Your task to perform on an android device: search for starred emails in the gmail app Image 0: 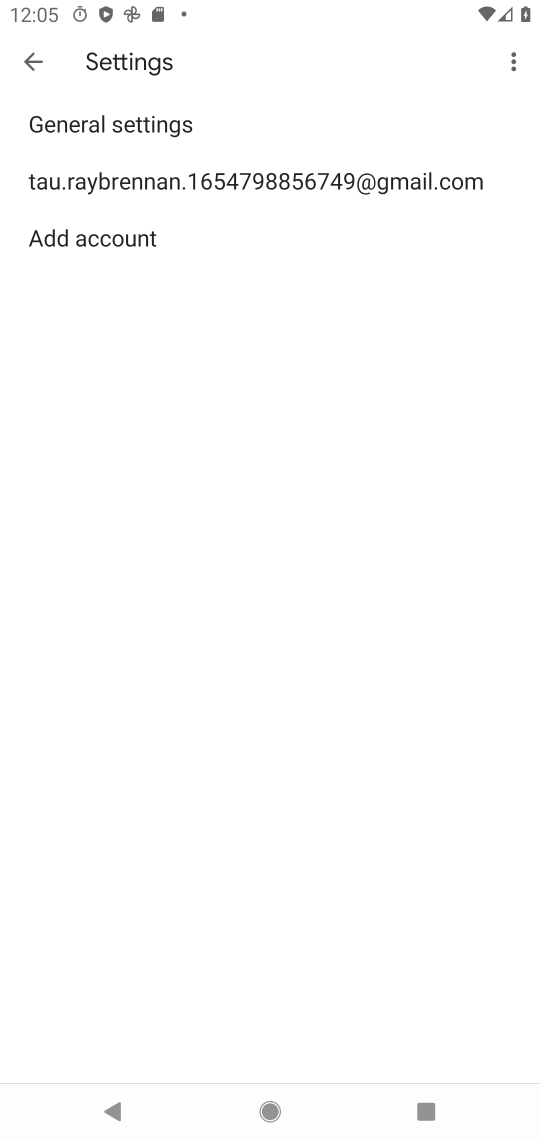
Step 0: press home button
Your task to perform on an android device: search for starred emails in the gmail app Image 1: 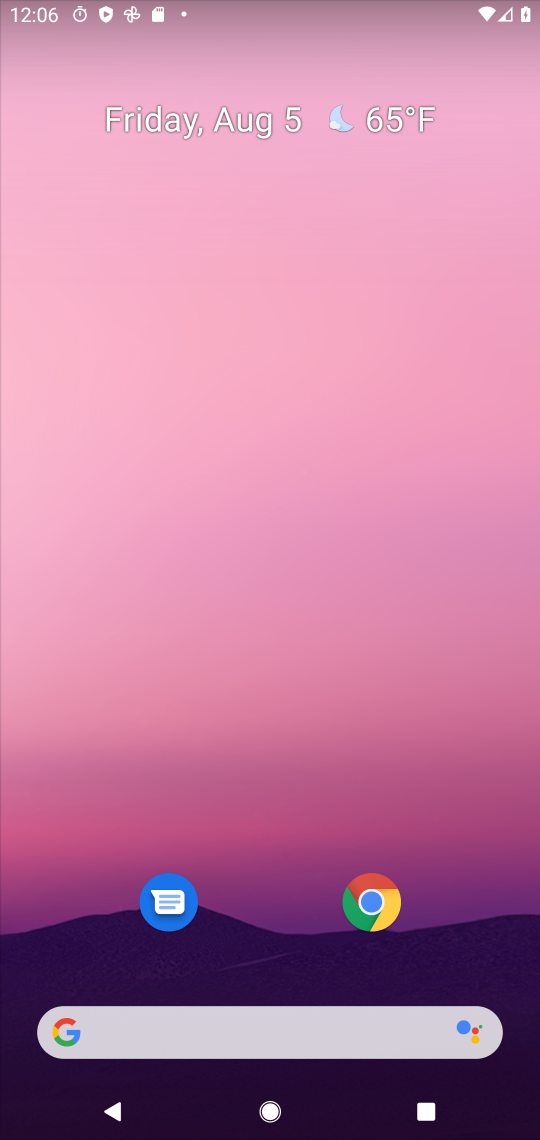
Step 1: drag from (340, 629) to (457, 99)
Your task to perform on an android device: search for starred emails in the gmail app Image 2: 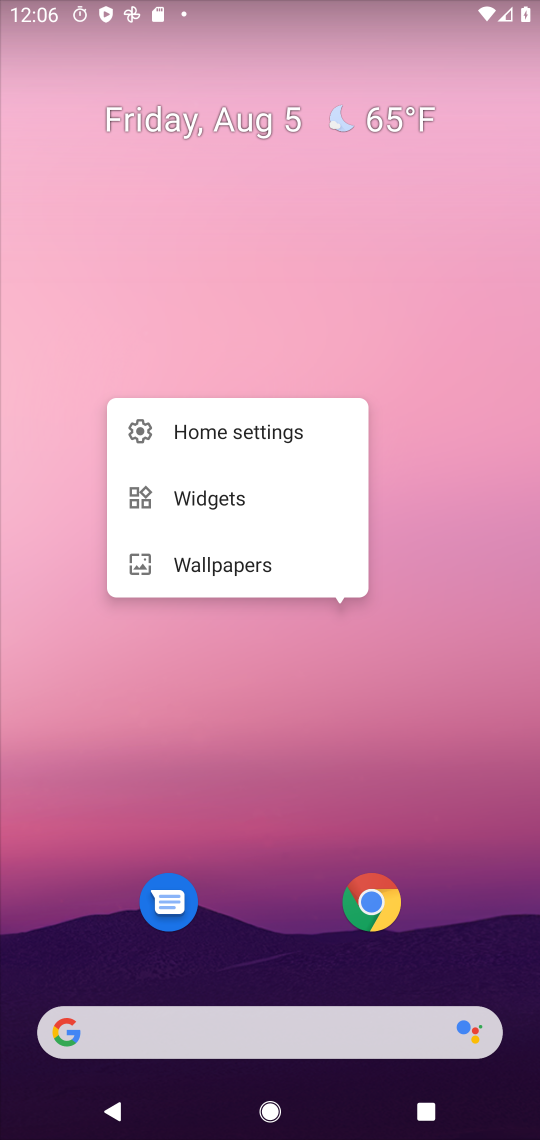
Step 2: click (456, 630)
Your task to perform on an android device: search for starred emails in the gmail app Image 3: 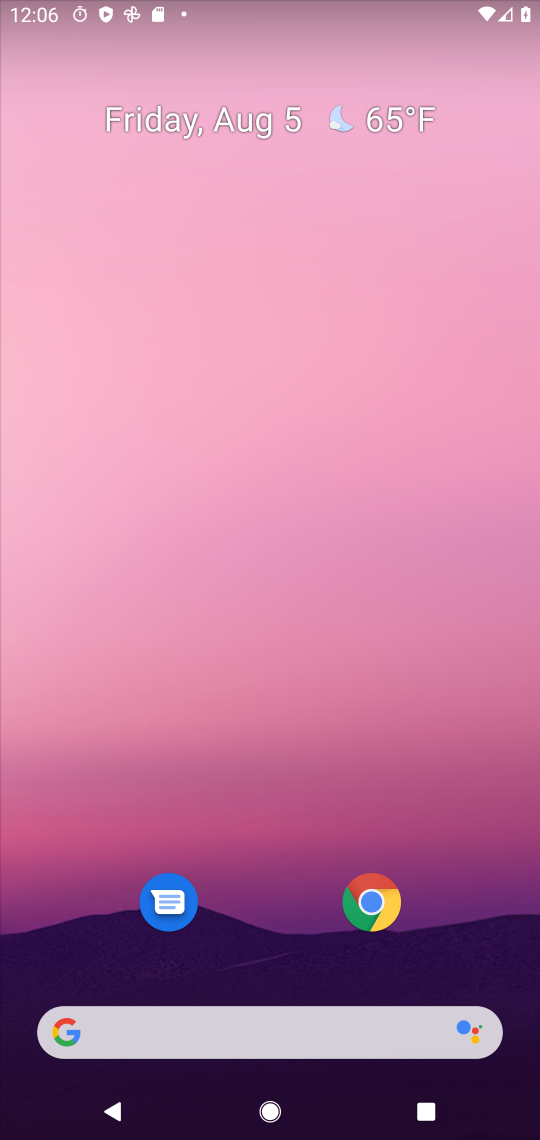
Step 3: drag from (288, 1033) to (377, 238)
Your task to perform on an android device: search for starred emails in the gmail app Image 4: 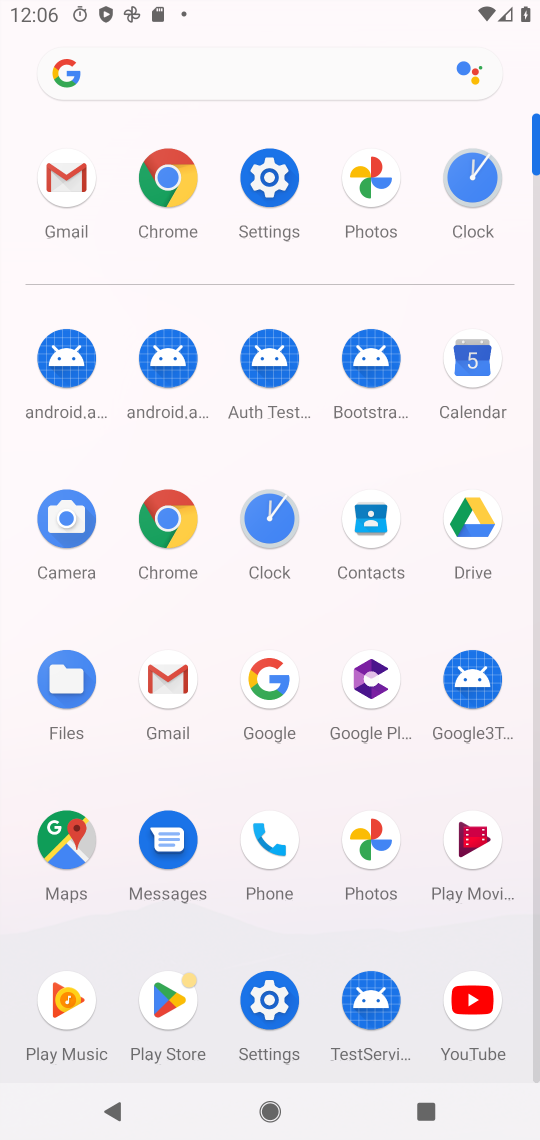
Step 4: click (177, 692)
Your task to perform on an android device: search for starred emails in the gmail app Image 5: 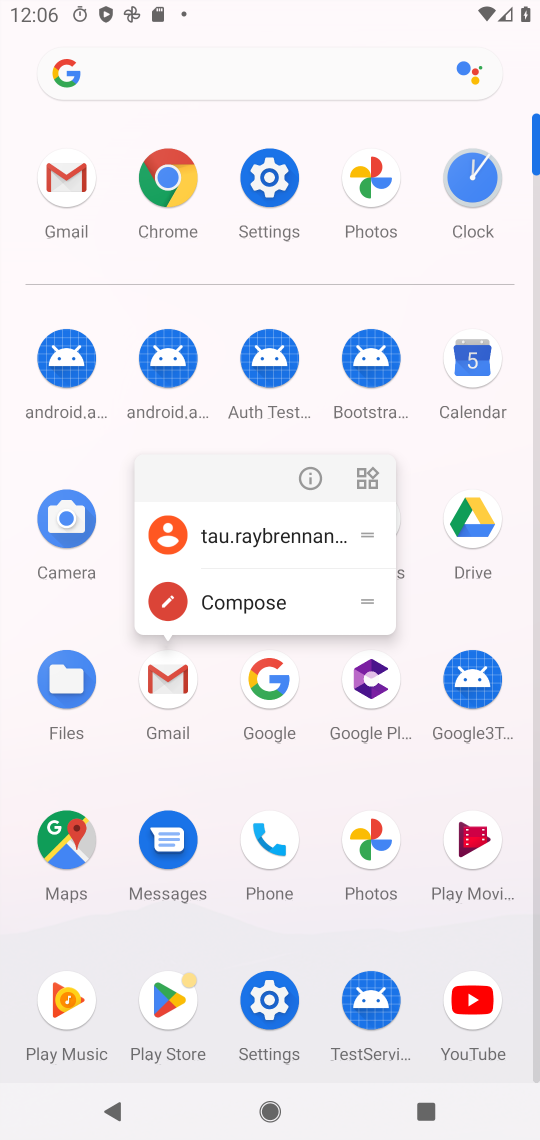
Step 5: click (159, 689)
Your task to perform on an android device: search for starred emails in the gmail app Image 6: 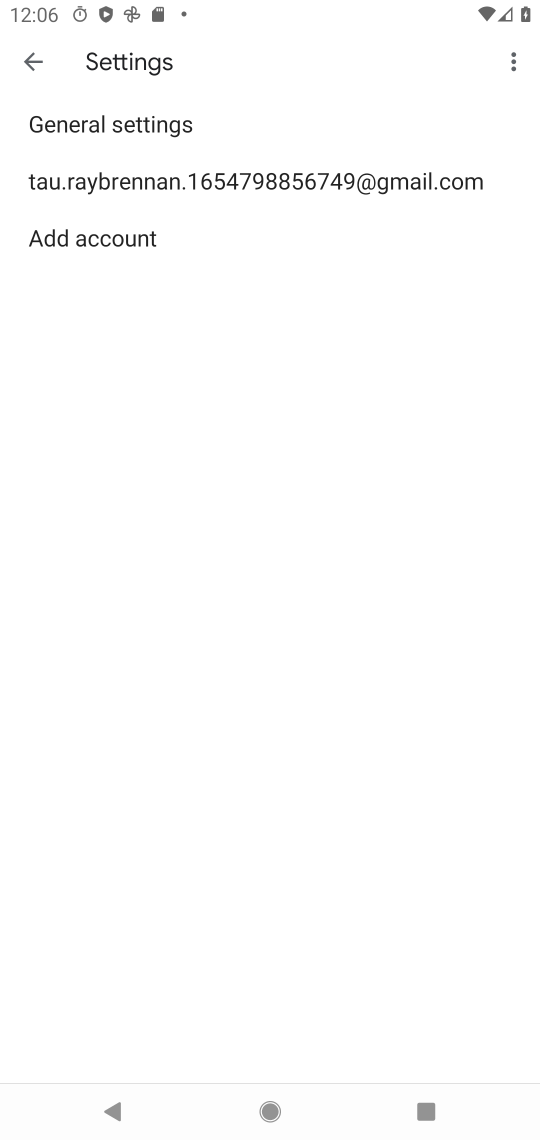
Step 6: click (83, 185)
Your task to perform on an android device: search for starred emails in the gmail app Image 7: 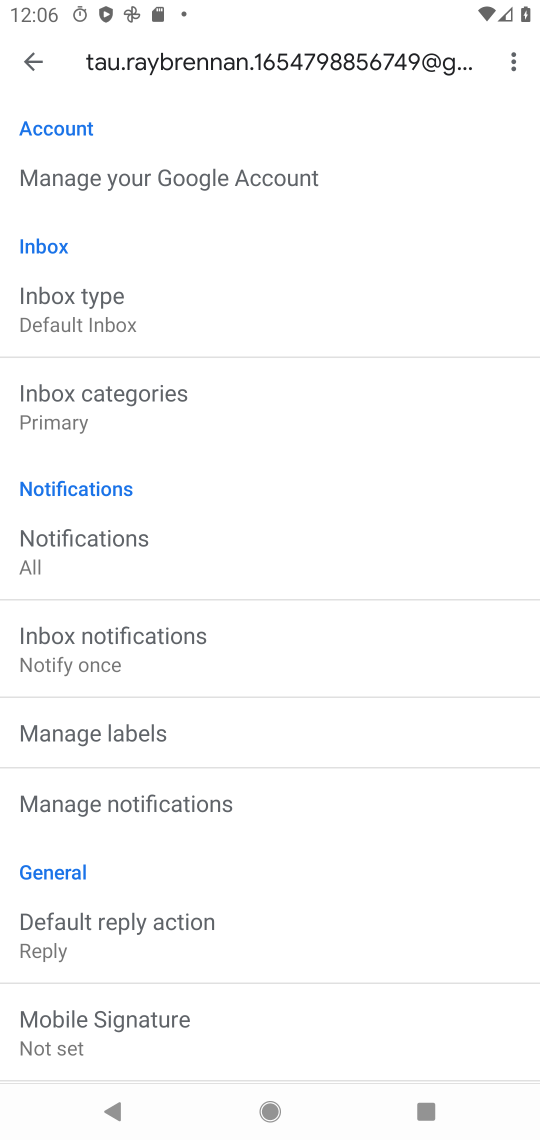
Step 7: click (39, 77)
Your task to perform on an android device: search for starred emails in the gmail app Image 8: 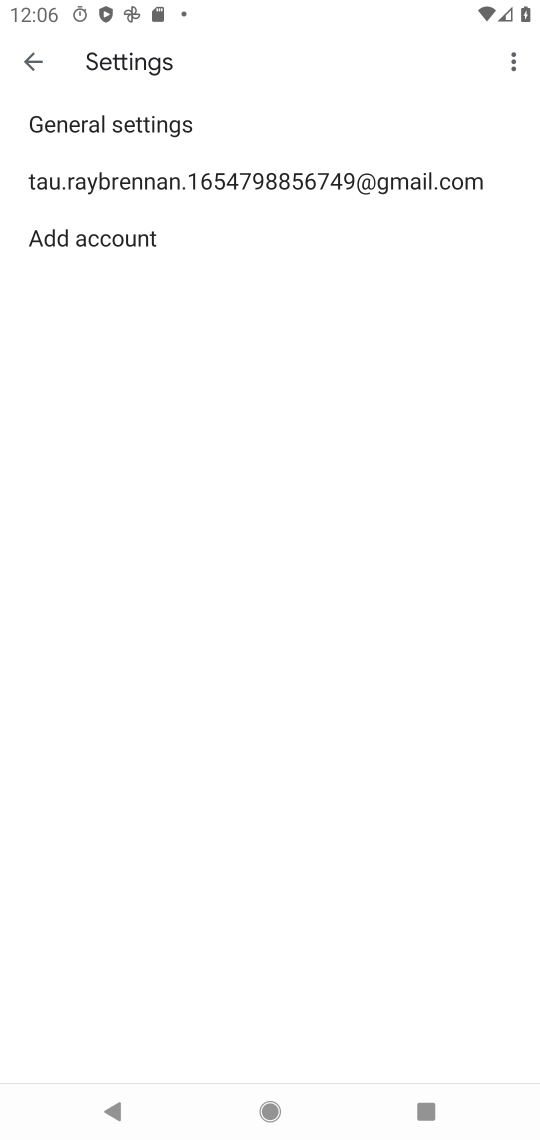
Step 8: click (32, 71)
Your task to perform on an android device: search for starred emails in the gmail app Image 9: 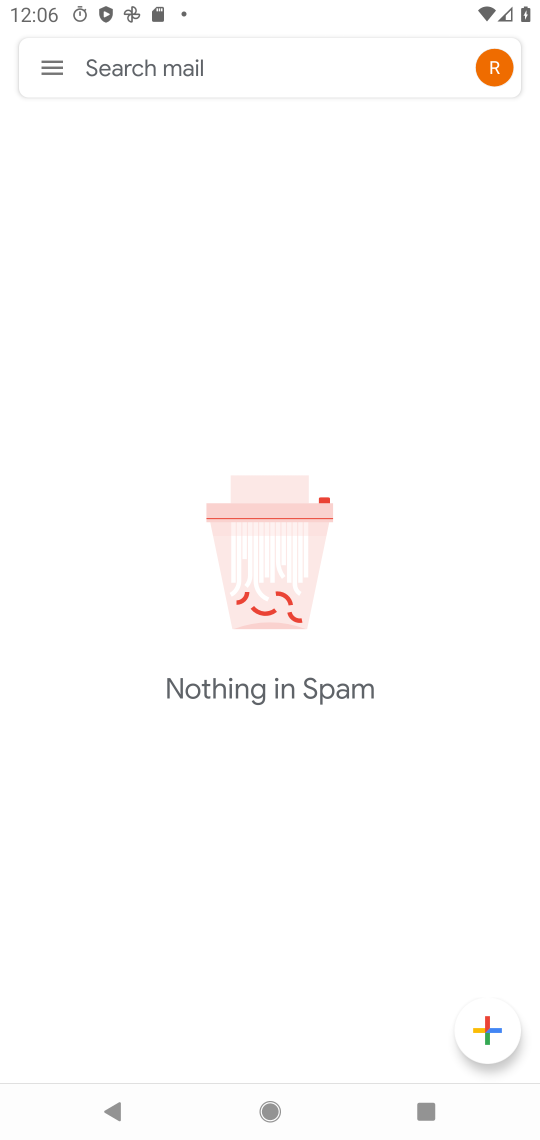
Step 9: click (34, 71)
Your task to perform on an android device: search for starred emails in the gmail app Image 10: 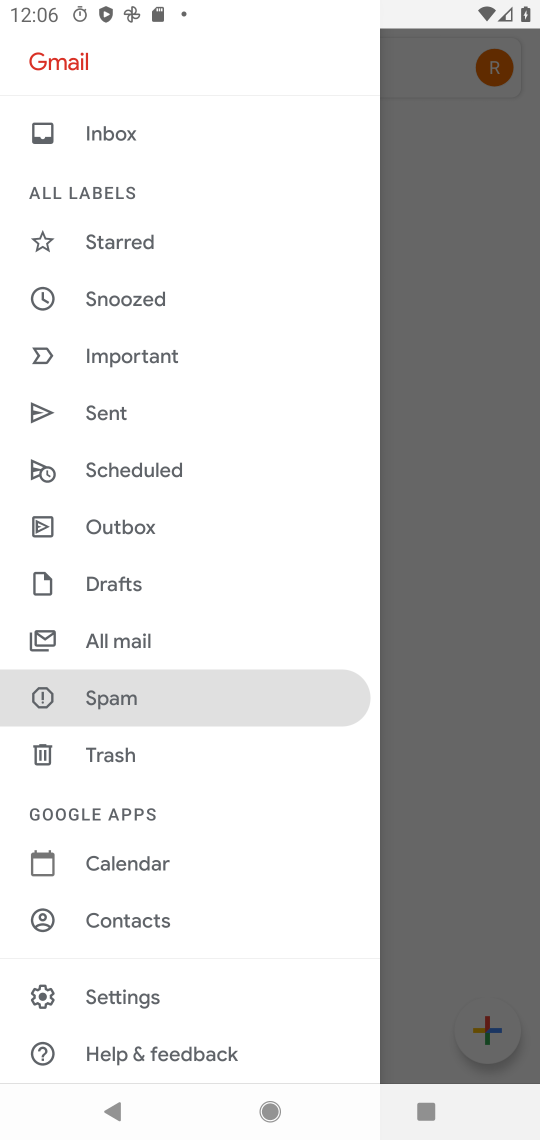
Step 10: click (129, 238)
Your task to perform on an android device: search for starred emails in the gmail app Image 11: 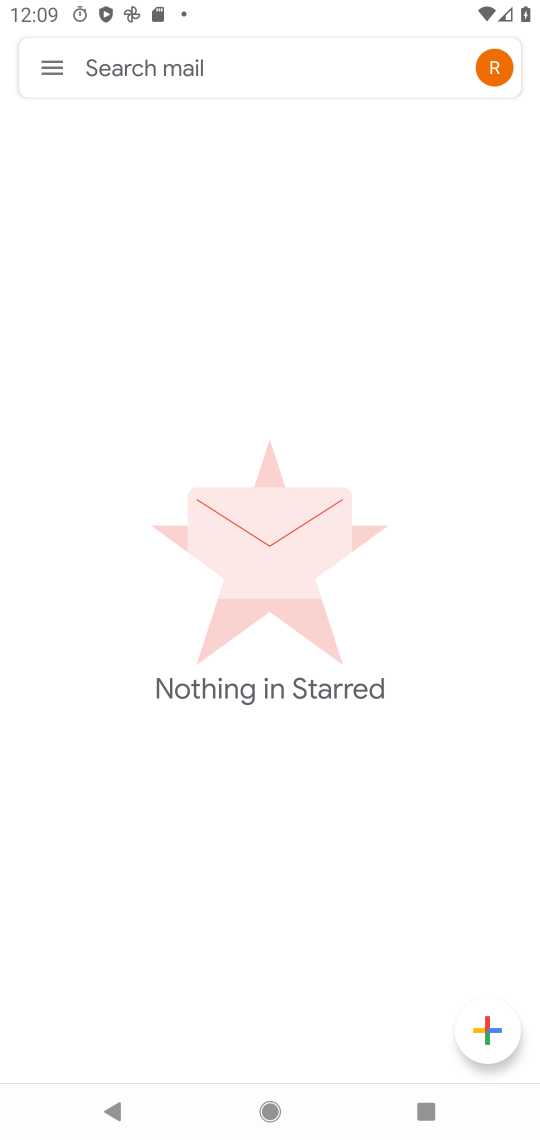
Step 11: task complete